Your task to perform on an android device: manage bookmarks in the chrome app Image 0: 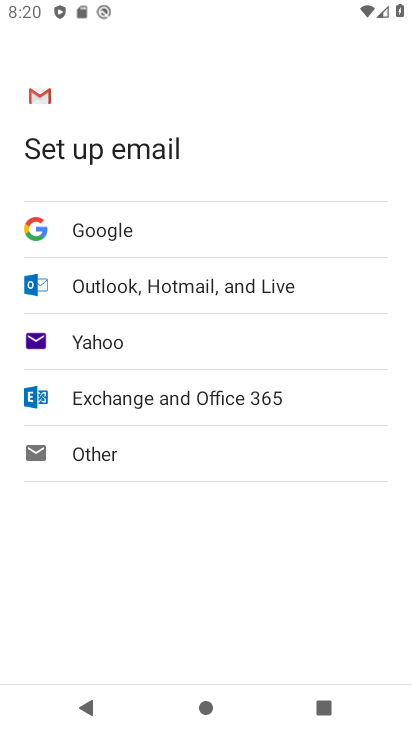
Step 0: press home button
Your task to perform on an android device: manage bookmarks in the chrome app Image 1: 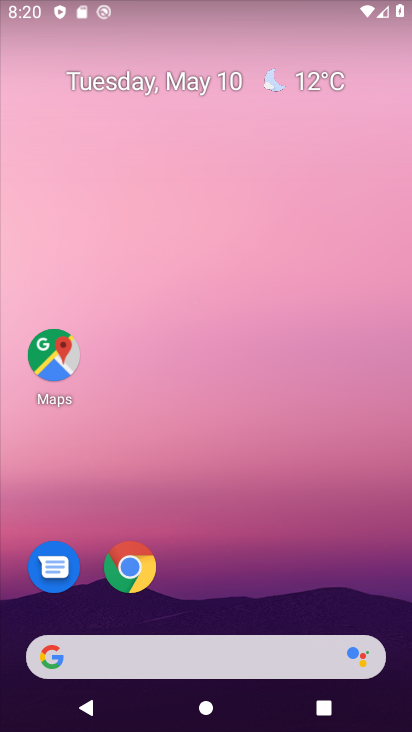
Step 1: click (134, 580)
Your task to perform on an android device: manage bookmarks in the chrome app Image 2: 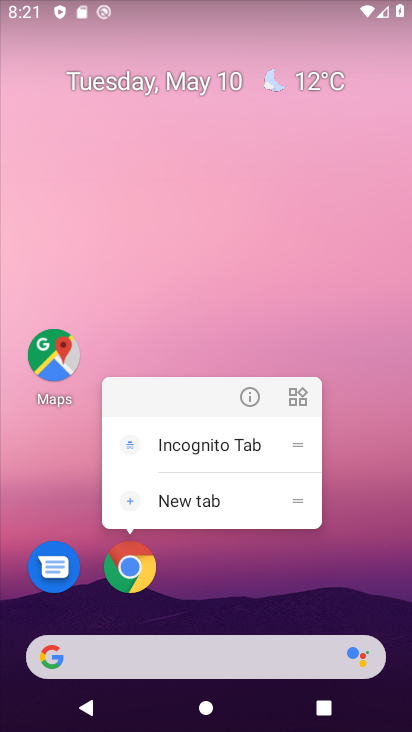
Step 2: click (136, 580)
Your task to perform on an android device: manage bookmarks in the chrome app Image 3: 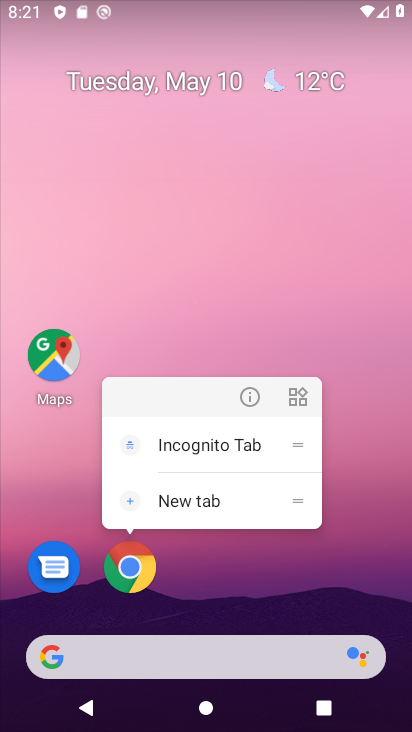
Step 3: click (136, 578)
Your task to perform on an android device: manage bookmarks in the chrome app Image 4: 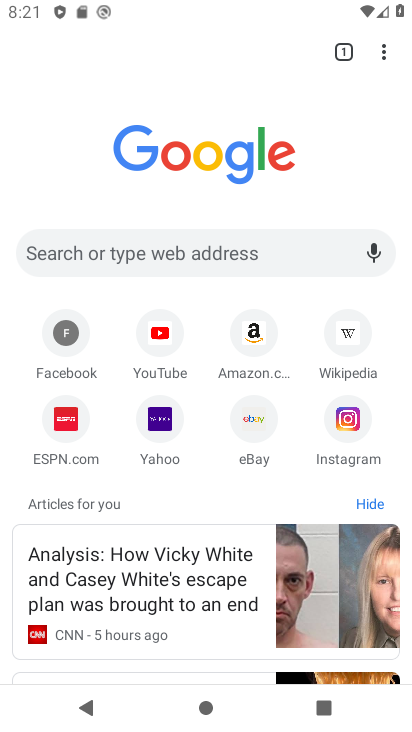
Step 4: click (378, 49)
Your task to perform on an android device: manage bookmarks in the chrome app Image 5: 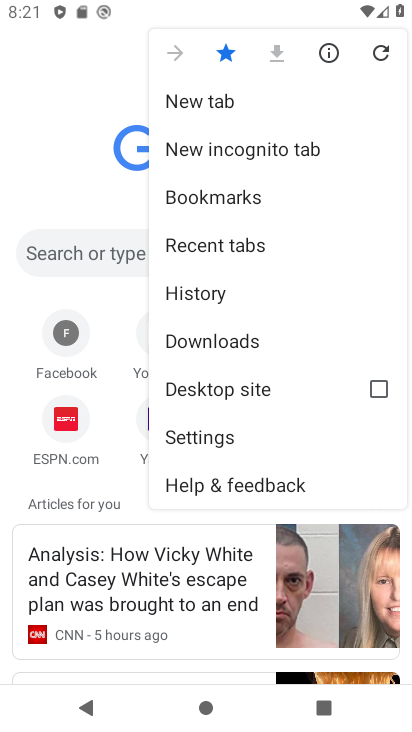
Step 5: click (228, 199)
Your task to perform on an android device: manage bookmarks in the chrome app Image 6: 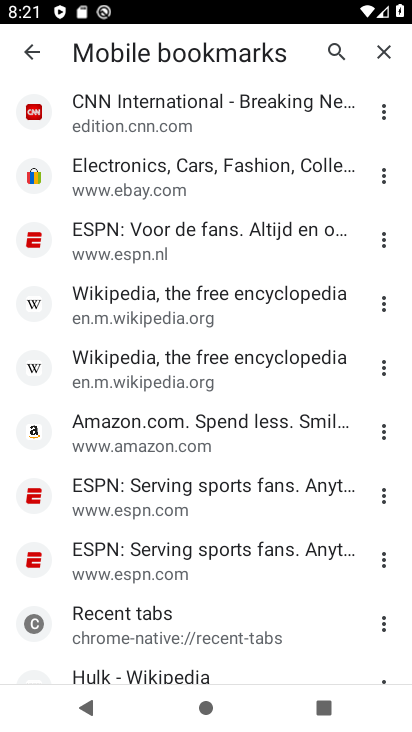
Step 6: drag from (176, 306) to (141, 306)
Your task to perform on an android device: manage bookmarks in the chrome app Image 7: 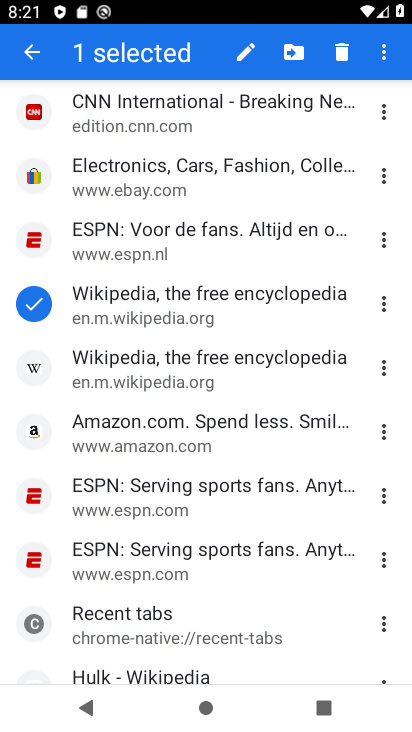
Step 7: click (340, 55)
Your task to perform on an android device: manage bookmarks in the chrome app Image 8: 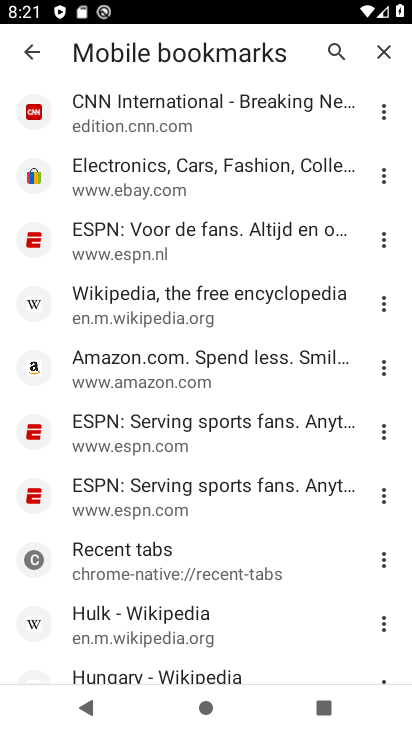
Step 8: click (171, 491)
Your task to perform on an android device: manage bookmarks in the chrome app Image 9: 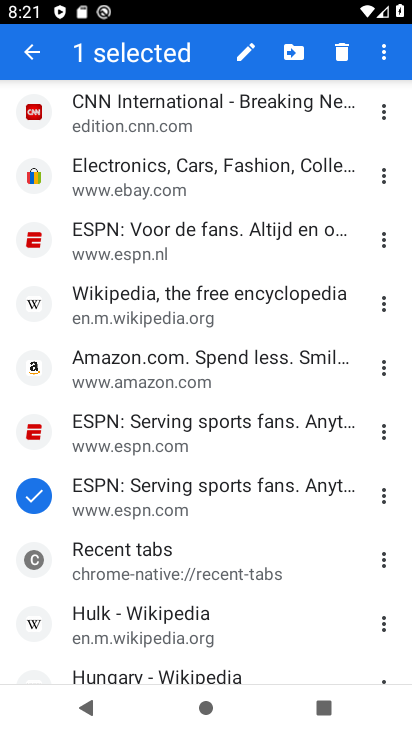
Step 9: click (348, 54)
Your task to perform on an android device: manage bookmarks in the chrome app Image 10: 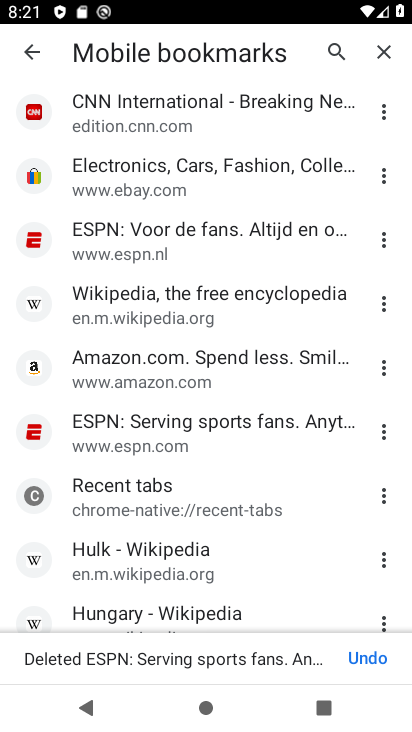
Step 10: task complete